Your task to perform on an android device: Search for Italian restaurants on Maps Image 0: 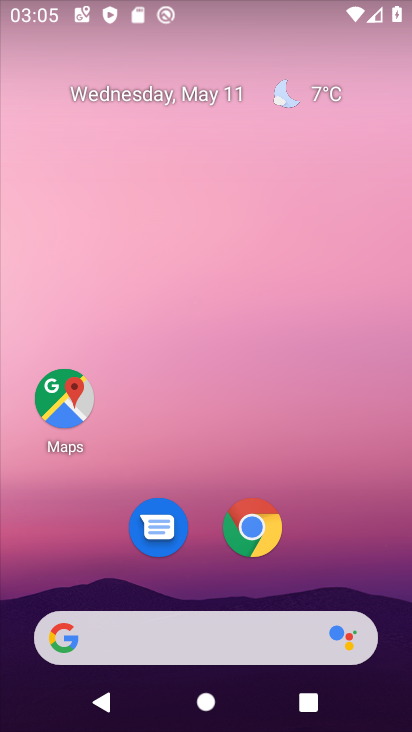
Step 0: click (62, 401)
Your task to perform on an android device: Search for Italian restaurants on Maps Image 1: 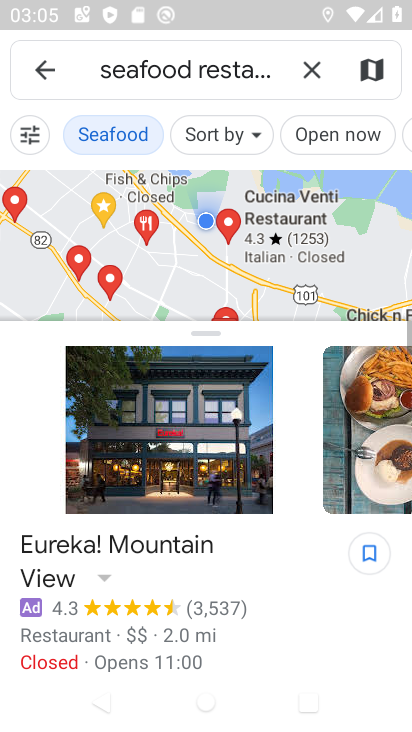
Step 1: click (304, 68)
Your task to perform on an android device: Search for Italian restaurants on Maps Image 2: 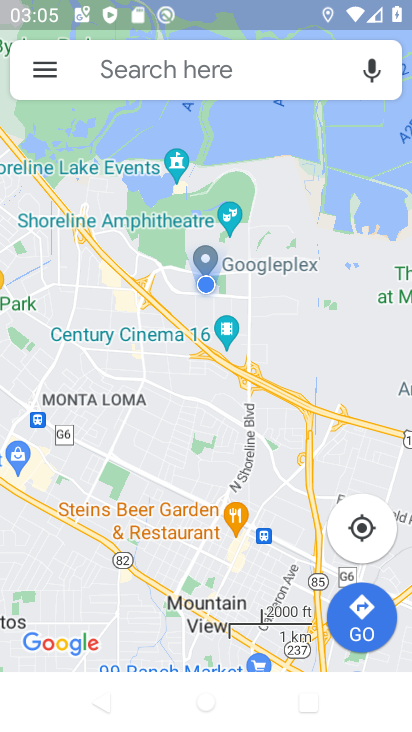
Step 2: click (126, 70)
Your task to perform on an android device: Search for Italian restaurants on Maps Image 3: 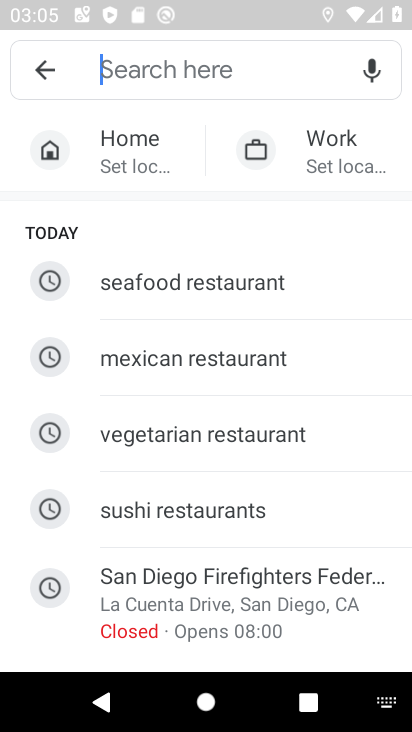
Step 3: type "italian restaurant"
Your task to perform on an android device: Search for Italian restaurants on Maps Image 4: 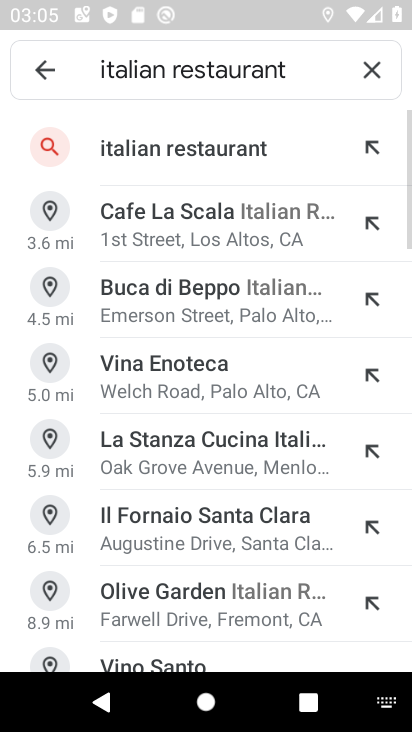
Step 4: click (171, 145)
Your task to perform on an android device: Search for Italian restaurants on Maps Image 5: 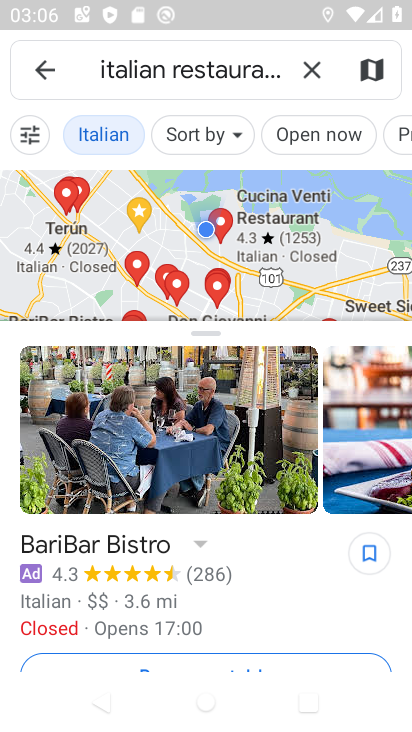
Step 5: task complete